Your task to perform on an android device: clear history in the chrome app Image 0: 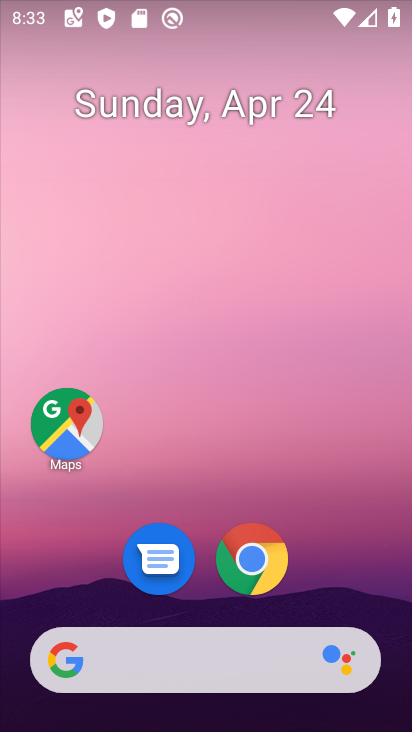
Step 0: click (392, 245)
Your task to perform on an android device: clear history in the chrome app Image 1: 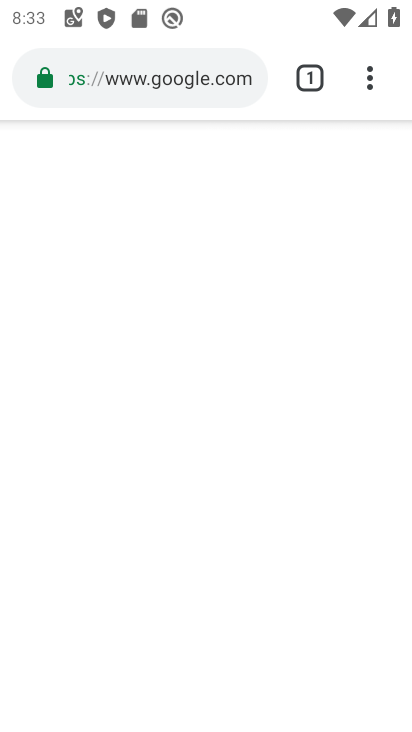
Step 1: click (372, 109)
Your task to perform on an android device: clear history in the chrome app Image 2: 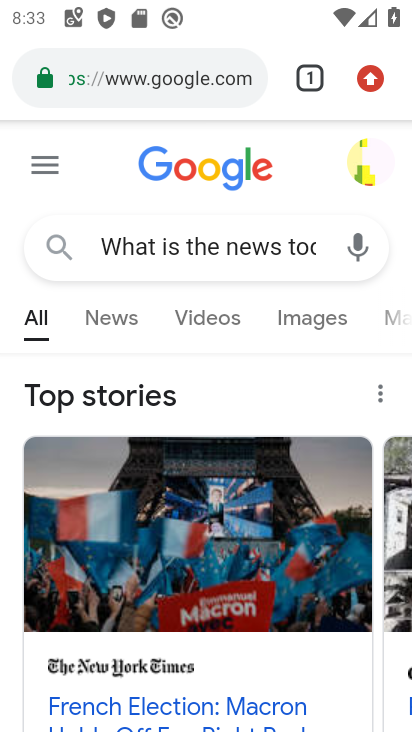
Step 2: click (371, 117)
Your task to perform on an android device: clear history in the chrome app Image 3: 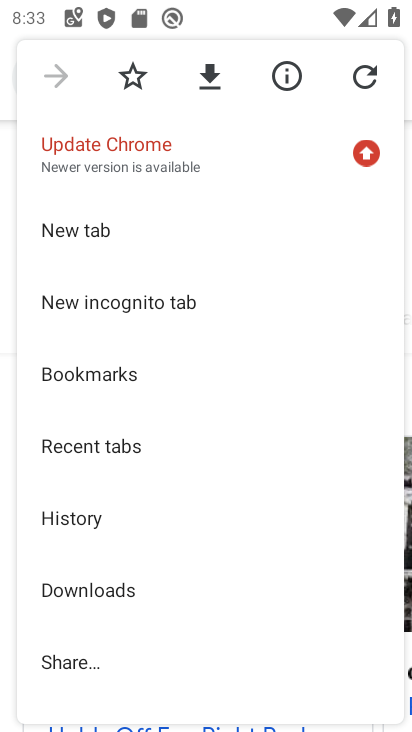
Step 3: click (258, 516)
Your task to perform on an android device: clear history in the chrome app Image 4: 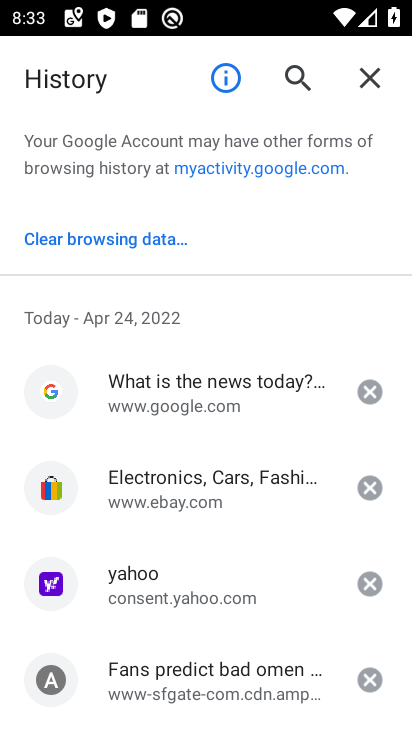
Step 4: click (79, 238)
Your task to perform on an android device: clear history in the chrome app Image 5: 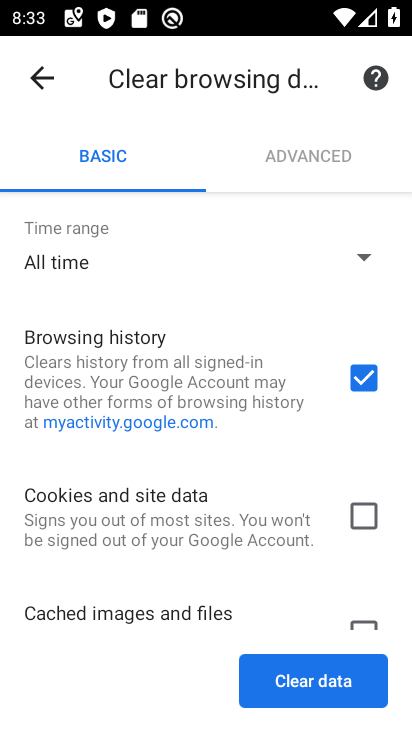
Step 5: click (325, 677)
Your task to perform on an android device: clear history in the chrome app Image 6: 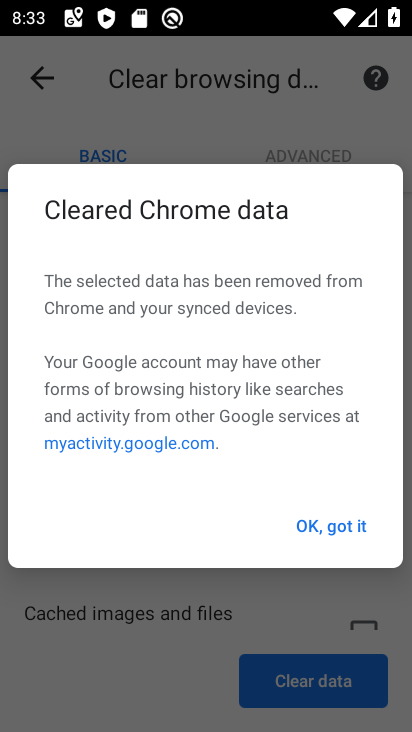
Step 6: click (344, 530)
Your task to perform on an android device: clear history in the chrome app Image 7: 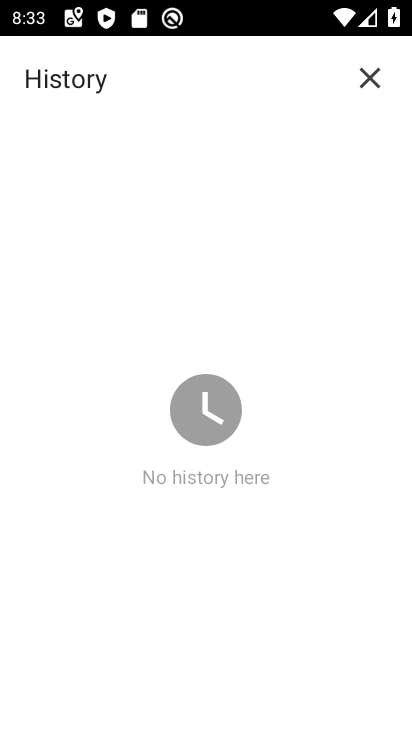
Step 7: task complete